Your task to perform on an android device: Turn off the flashlight Image 0: 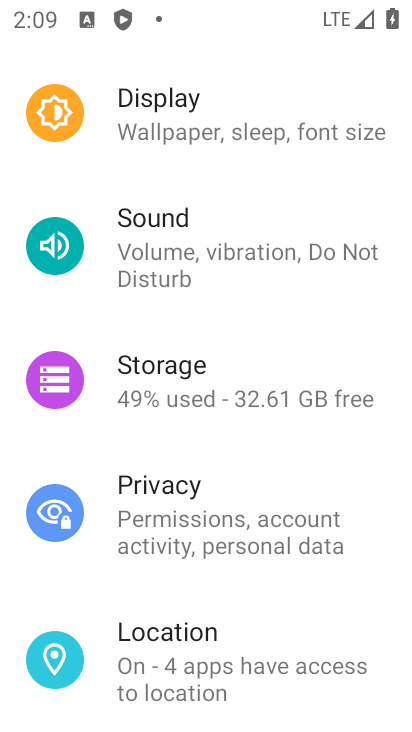
Step 0: press home button
Your task to perform on an android device: Turn off the flashlight Image 1: 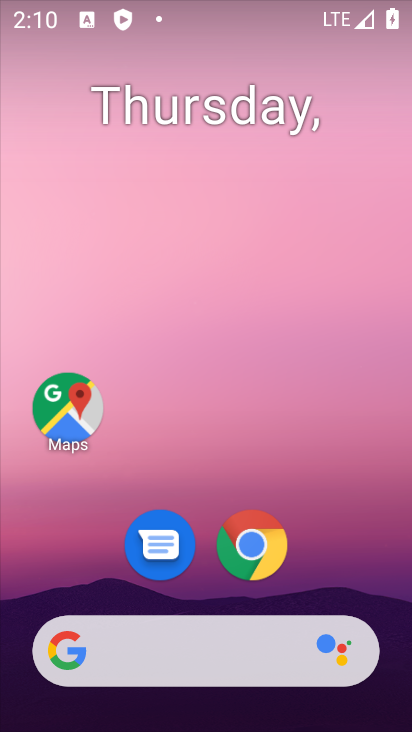
Step 1: drag from (162, 675) to (189, 130)
Your task to perform on an android device: Turn off the flashlight Image 2: 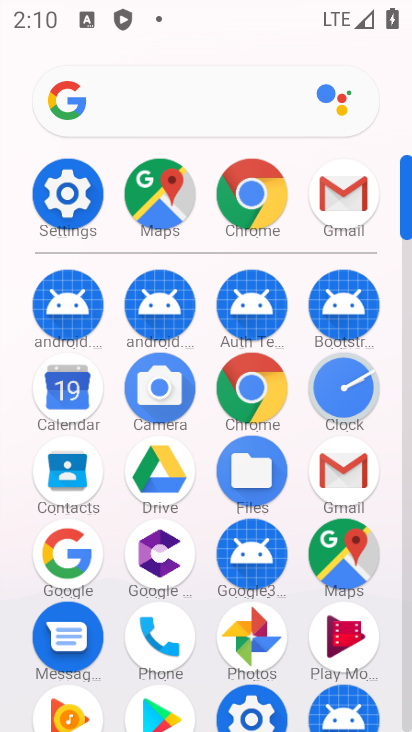
Step 2: click (52, 204)
Your task to perform on an android device: Turn off the flashlight Image 3: 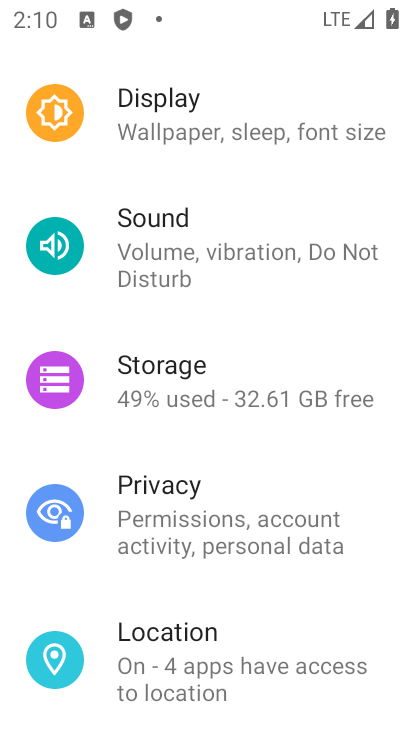
Step 3: drag from (195, 134) to (238, 677)
Your task to perform on an android device: Turn off the flashlight Image 4: 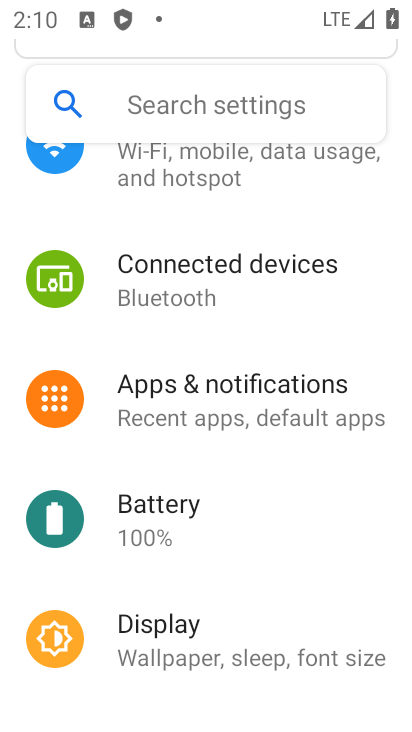
Step 4: drag from (217, 186) to (298, 673)
Your task to perform on an android device: Turn off the flashlight Image 5: 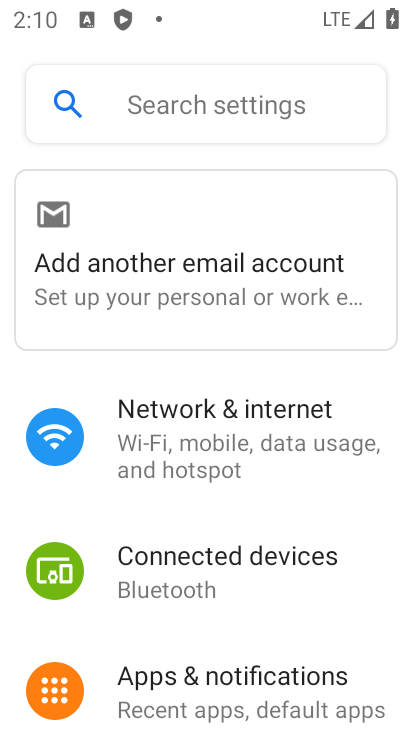
Step 5: click (296, 453)
Your task to perform on an android device: Turn off the flashlight Image 6: 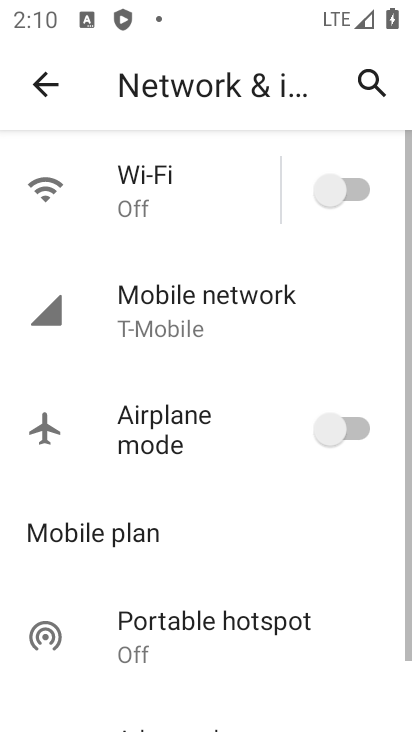
Step 6: task complete